Your task to perform on an android device: Open calendar and show me the third week of next month Image 0: 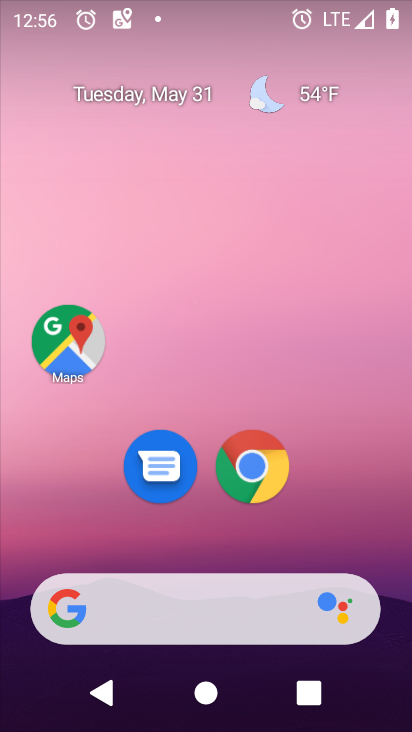
Step 0: drag from (180, 613) to (39, 5)
Your task to perform on an android device: Open calendar and show me the third week of next month Image 1: 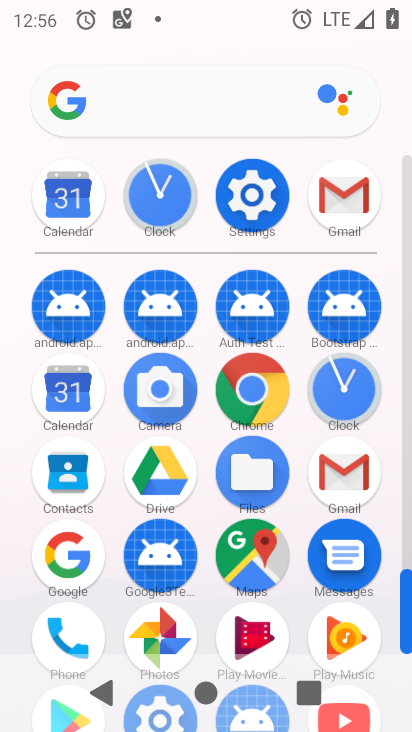
Step 1: click (74, 400)
Your task to perform on an android device: Open calendar and show me the third week of next month Image 2: 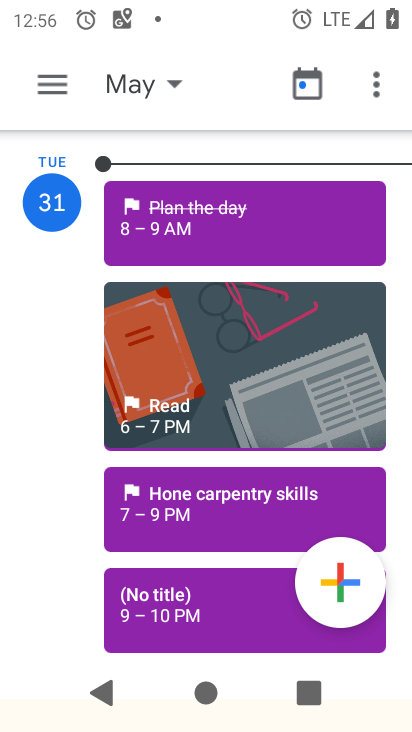
Step 2: click (53, 86)
Your task to perform on an android device: Open calendar and show me the third week of next month Image 3: 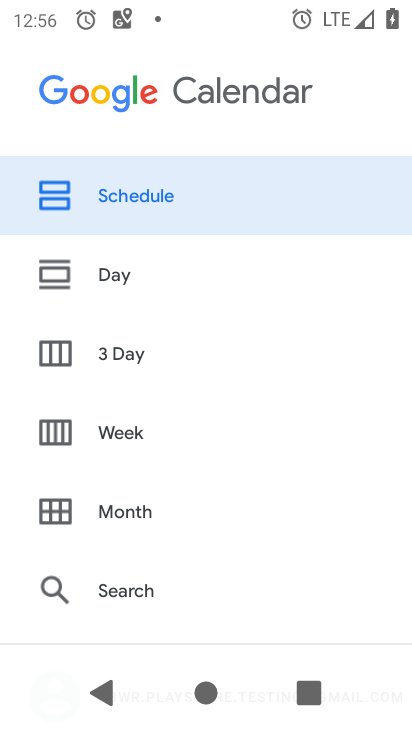
Step 3: click (192, 497)
Your task to perform on an android device: Open calendar and show me the third week of next month Image 4: 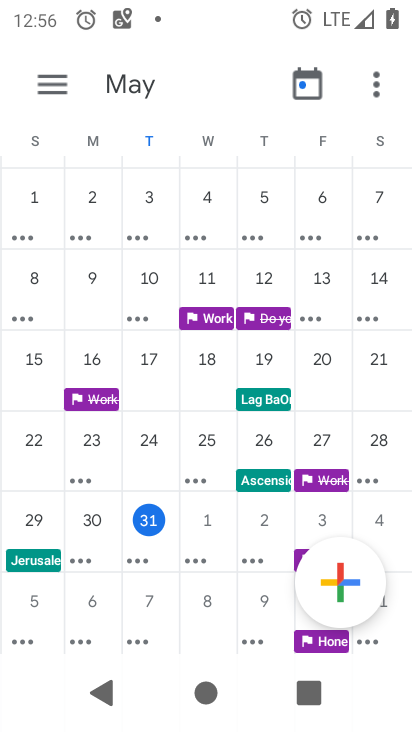
Step 4: task complete